Your task to perform on an android device: toggle improve location accuracy Image 0: 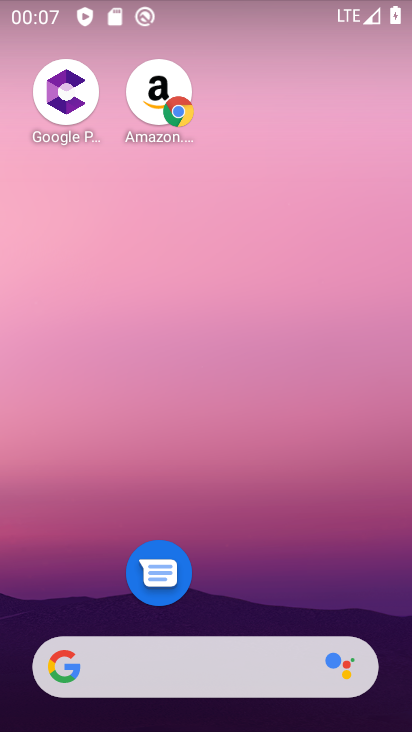
Step 0: drag from (245, 678) to (230, 24)
Your task to perform on an android device: toggle improve location accuracy Image 1: 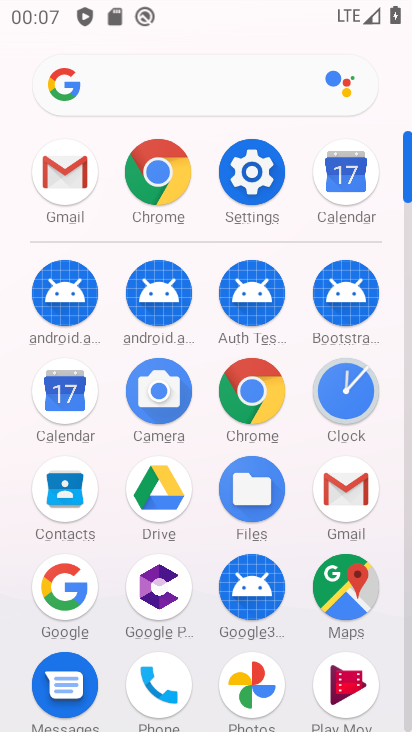
Step 1: click (251, 176)
Your task to perform on an android device: toggle improve location accuracy Image 2: 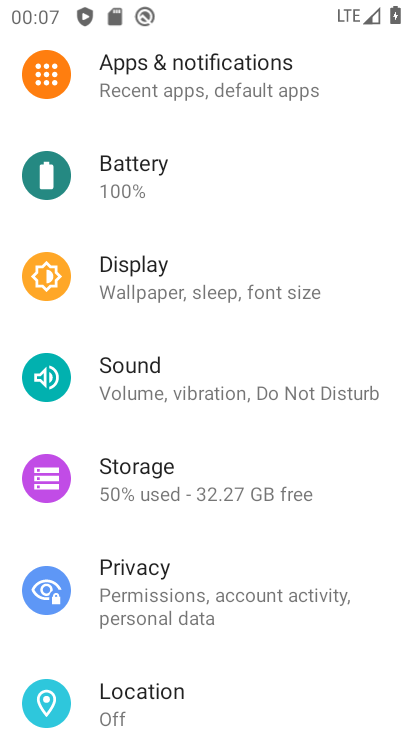
Step 2: click (217, 697)
Your task to perform on an android device: toggle improve location accuracy Image 3: 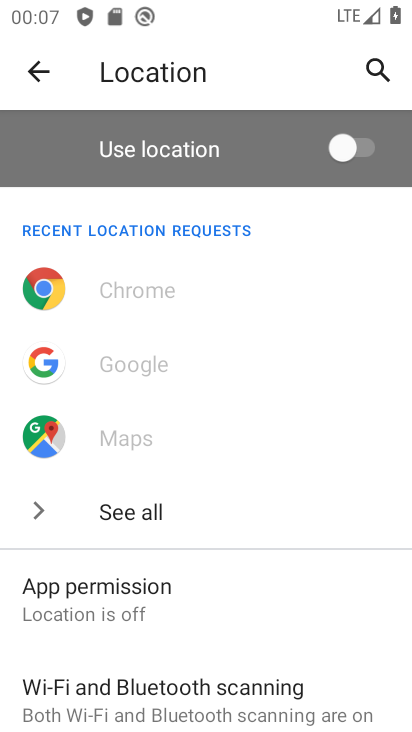
Step 3: drag from (228, 724) to (283, 128)
Your task to perform on an android device: toggle improve location accuracy Image 4: 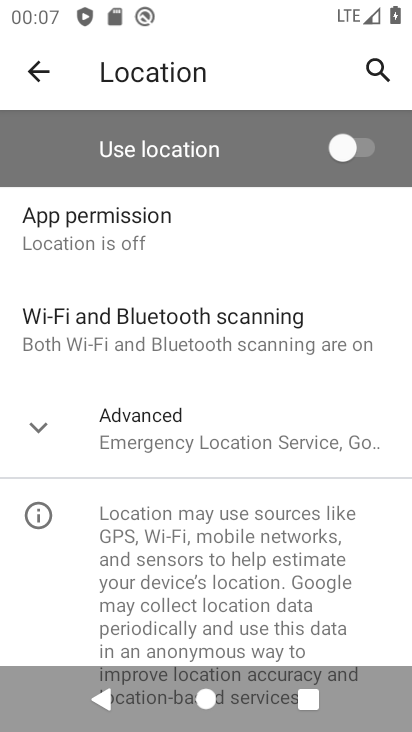
Step 4: click (224, 435)
Your task to perform on an android device: toggle improve location accuracy Image 5: 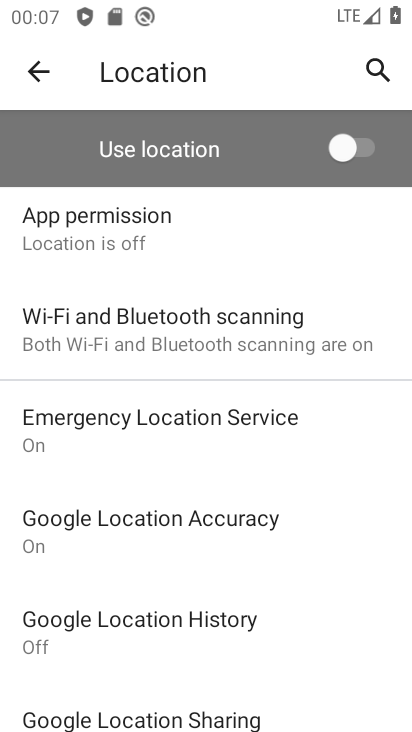
Step 5: click (231, 506)
Your task to perform on an android device: toggle improve location accuracy Image 6: 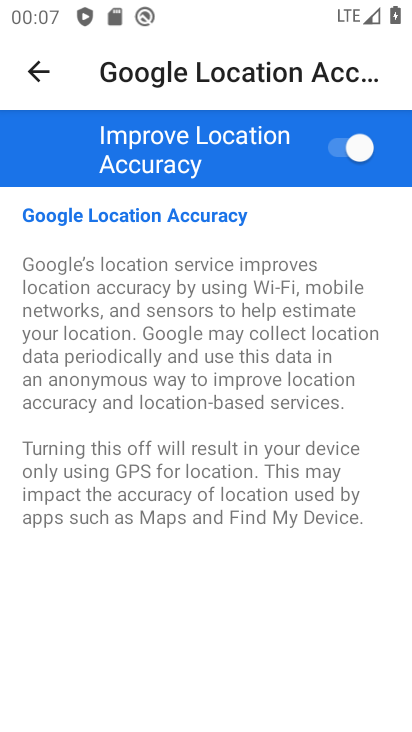
Step 6: click (333, 147)
Your task to perform on an android device: toggle improve location accuracy Image 7: 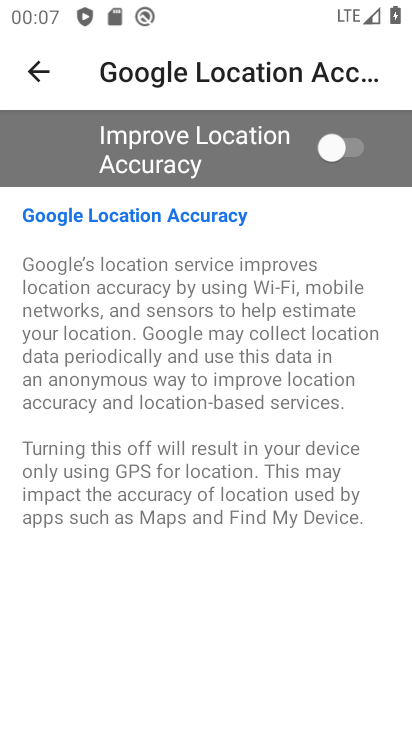
Step 7: task complete